Your task to perform on an android device: set the timer Image 0: 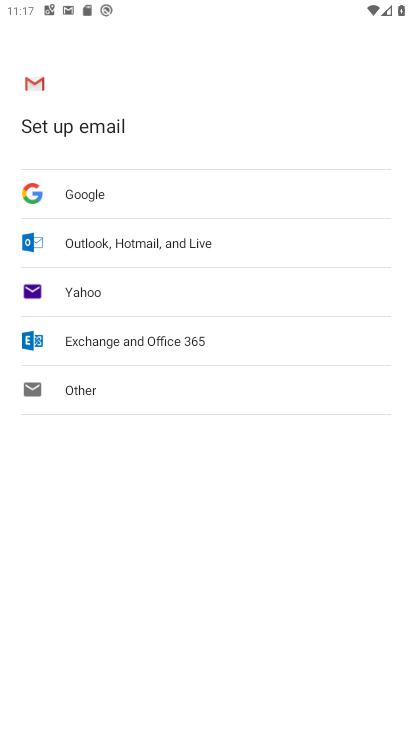
Step 0: press home button
Your task to perform on an android device: set the timer Image 1: 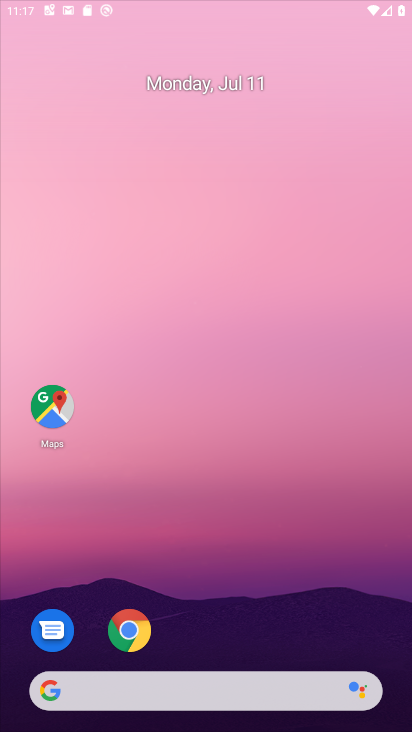
Step 1: drag from (206, 654) to (195, 16)
Your task to perform on an android device: set the timer Image 2: 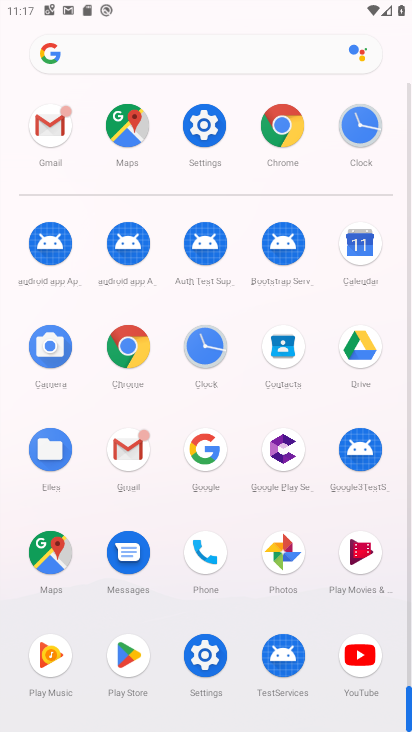
Step 2: click (360, 128)
Your task to perform on an android device: set the timer Image 3: 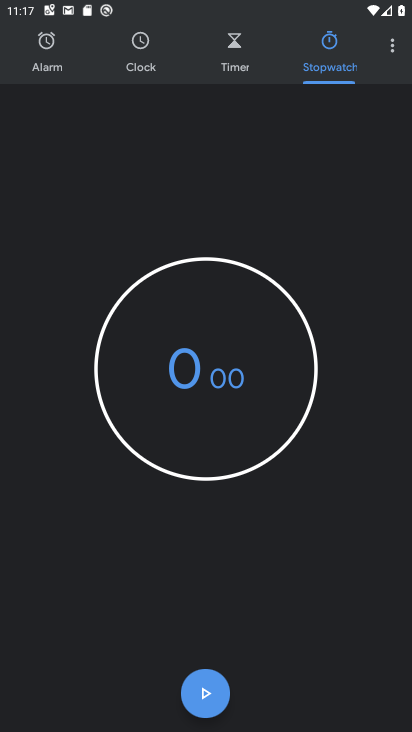
Step 3: click (239, 56)
Your task to perform on an android device: set the timer Image 4: 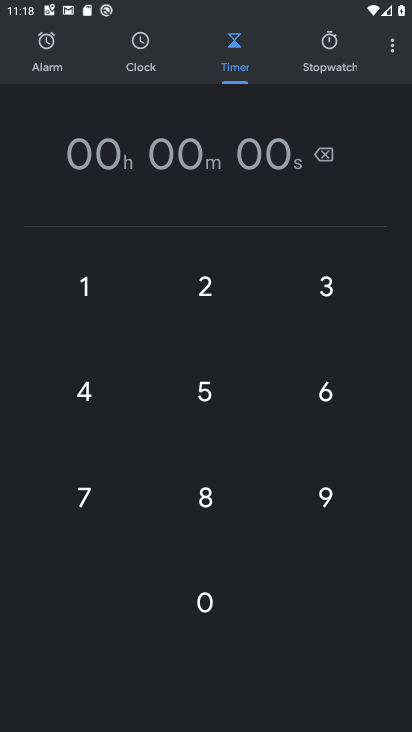
Step 4: click (213, 410)
Your task to perform on an android device: set the timer Image 5: 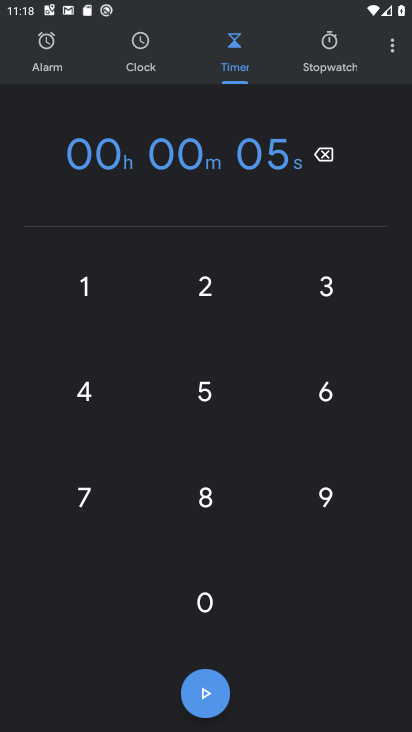
Step 5: click (204, 704)
Your task to perform on an android device: set the timer Image 6: 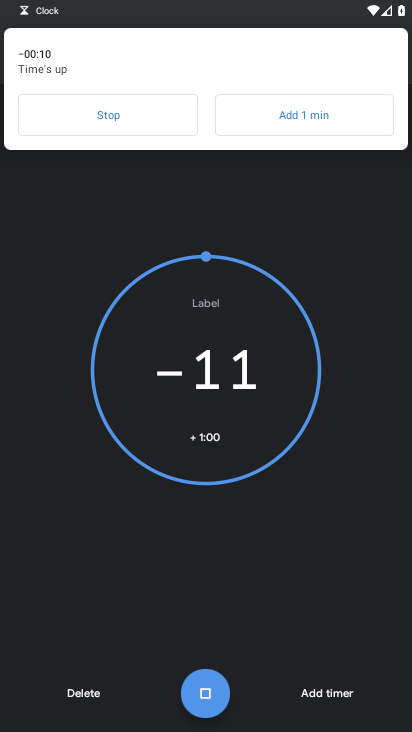
Step 6: task complete